Your task to perform on an android device: Go to Google Image 0: 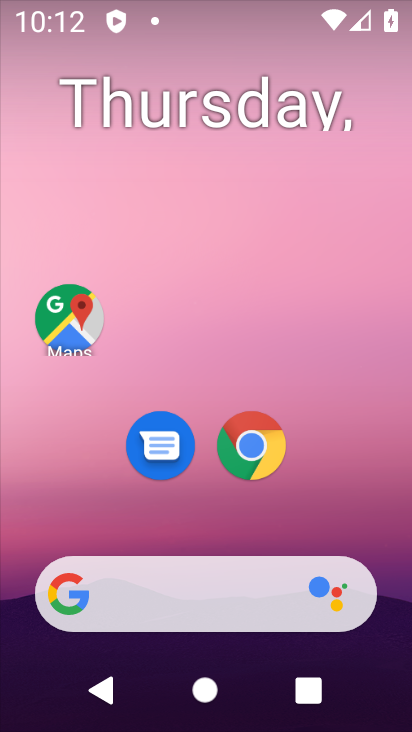
Step 0: drag from (235, 717) to (217, 127)
Your task to perform on an android device: Go to Google Image 1: 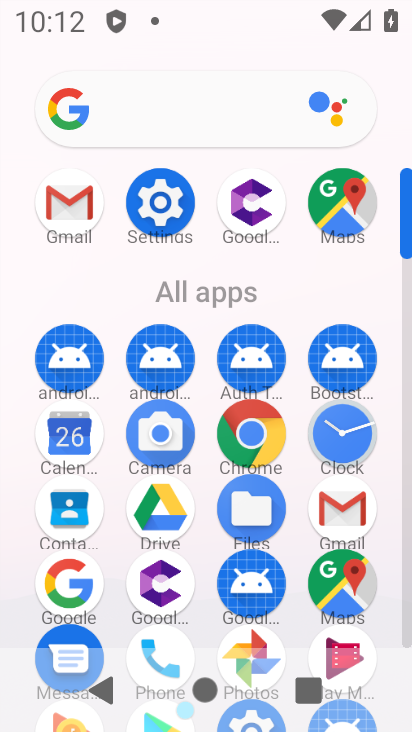
Step 1: click (74, 585)
Your task to perform on an android device: Go to Google Image 2: 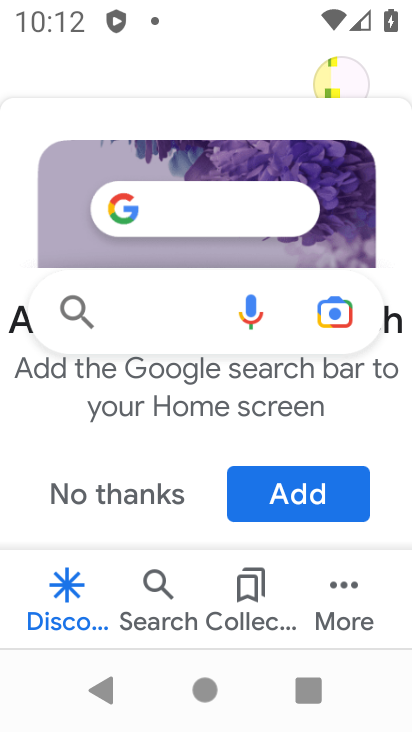
Step 2: task complete